Your task to perform on an android device: install app "TextNow: Call + Text Unlimited" Image 0: 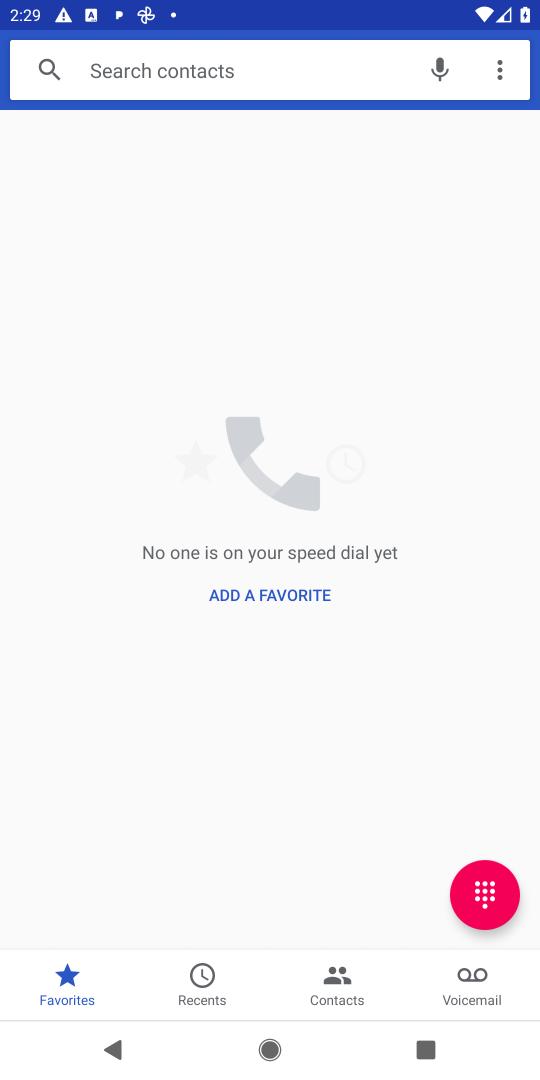
Step 0: press home button
Your task to perform on an android device: install app "TextNow: Call + Text Unlimited" Image 1: 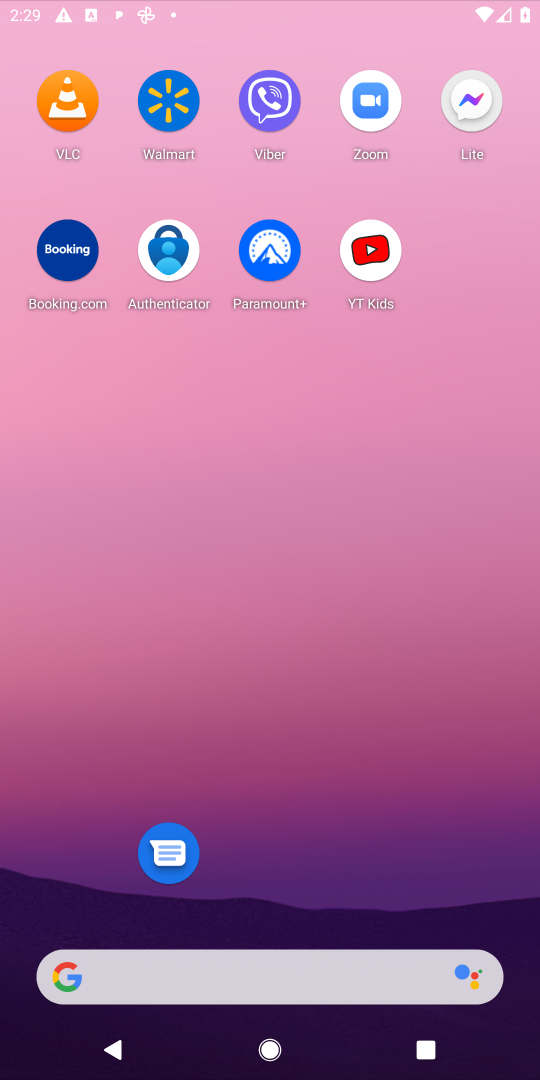
Step 1: press home button
Your task to perform on an android device: install app "TextNow: Call + Text Unlimited" Image 2: 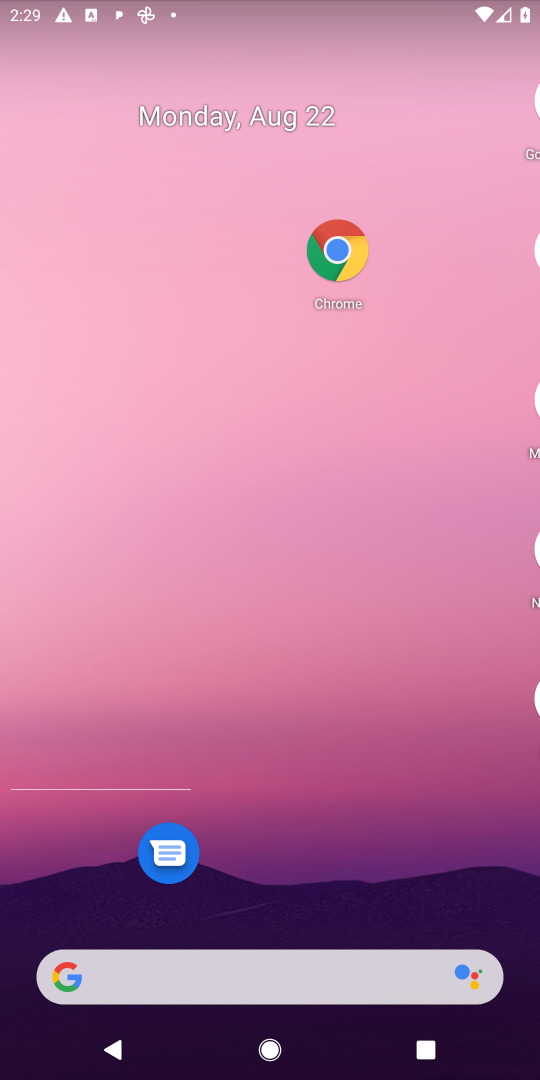
Step 2: drag from (295, 817) to (293, 177)
Your task to perform on an android device: install app "TextNow: Call + Text Unlimited" Image 3: 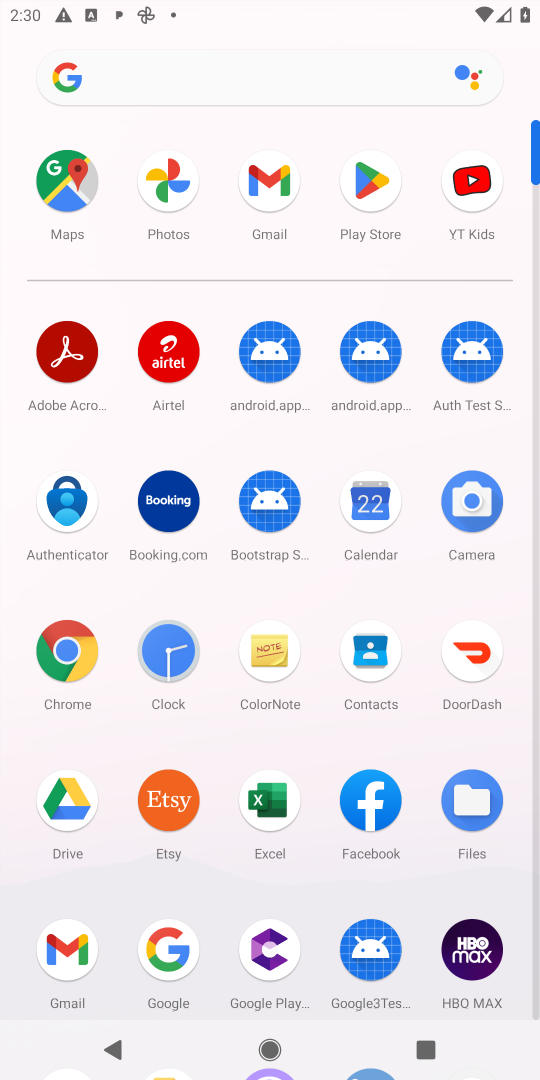
Step 3: click (362, 171)
Your task to perform on an android device: install app "TextNow: Call + Text Unlimited" Image 4: 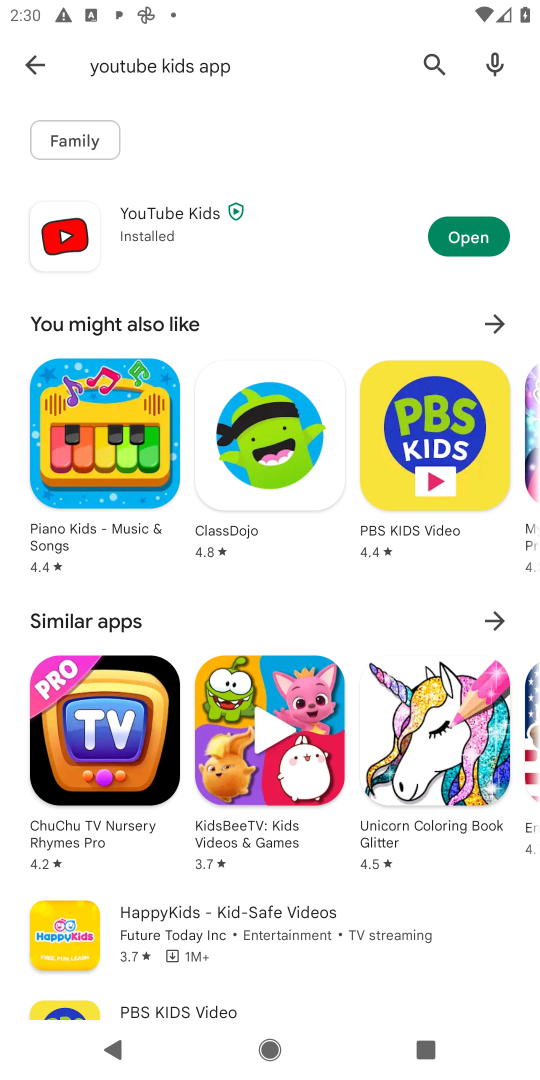
Step 4: click (31, 53)
Your task to perform on an android device: install app "TextNow: Call + Text Unlimited" Image 5: 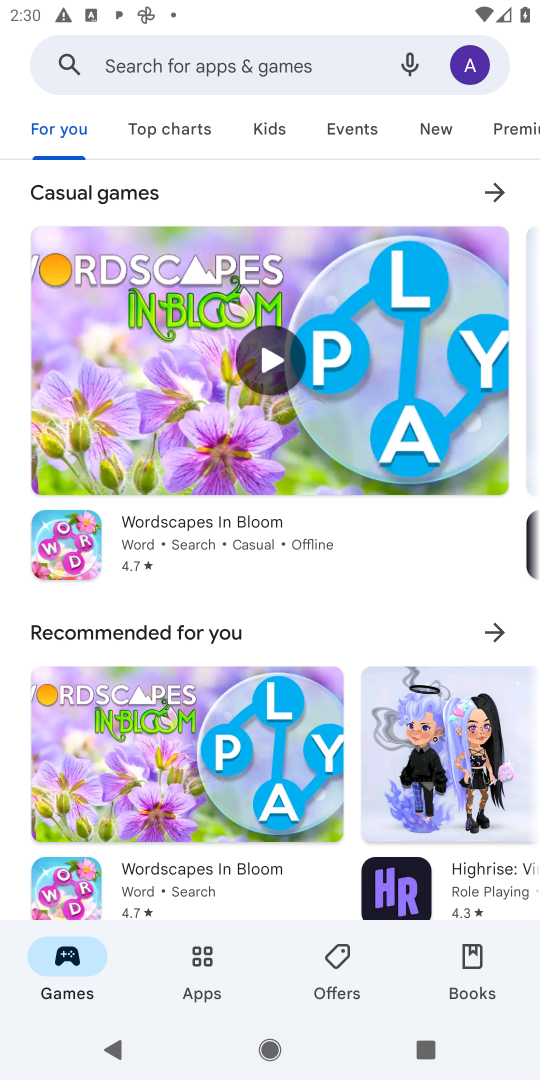
Step 5: click (241, 49)
Your task to perform on an android device: install app "TextNow: Call + Text Unlimited" Image 6: 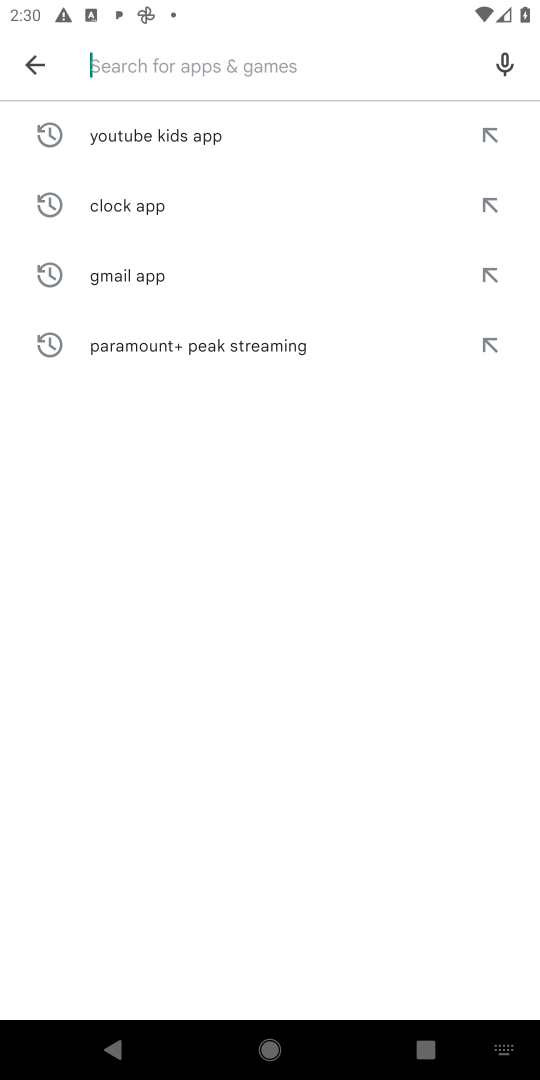
Step 6: type "TextNow: Call + Text Unlimited "
Your task to perform on an android device: install app "TextNow: Call + Text Unlimited" Image 7: 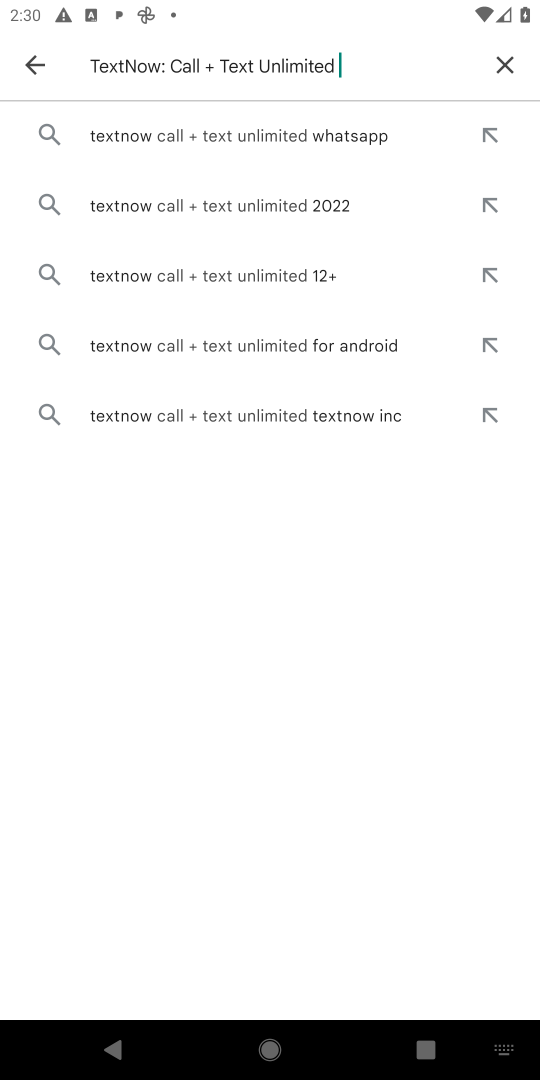
Step 7: click (193, 129)
Your task to perform on an android device: install app "TextNow: Call + Text Unlimited" Image 8: 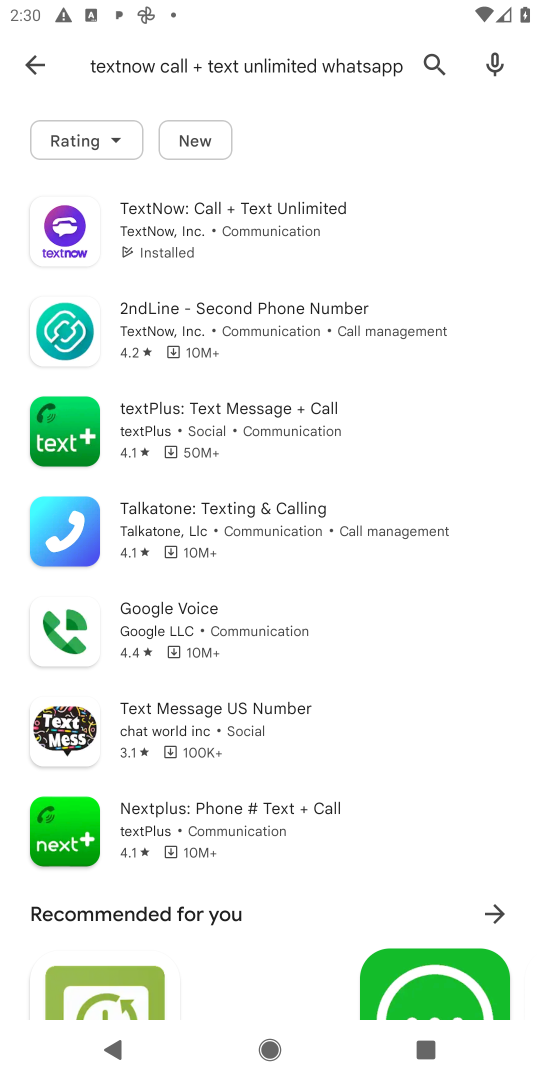
Step 8: click (219, 215)
Your task to perform on an android device: install app "TextNow: Call + Text Unlimited" Image 9: 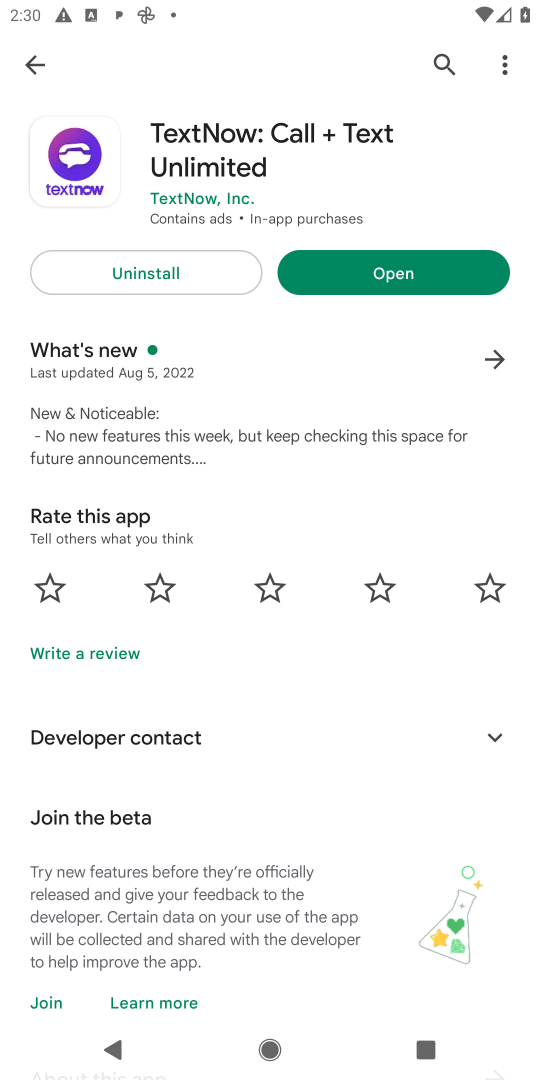
Step 9: click (401, 277)
Your task to perform on an android device: install app "TextNow: Call + Text Unlimited" Image 10: 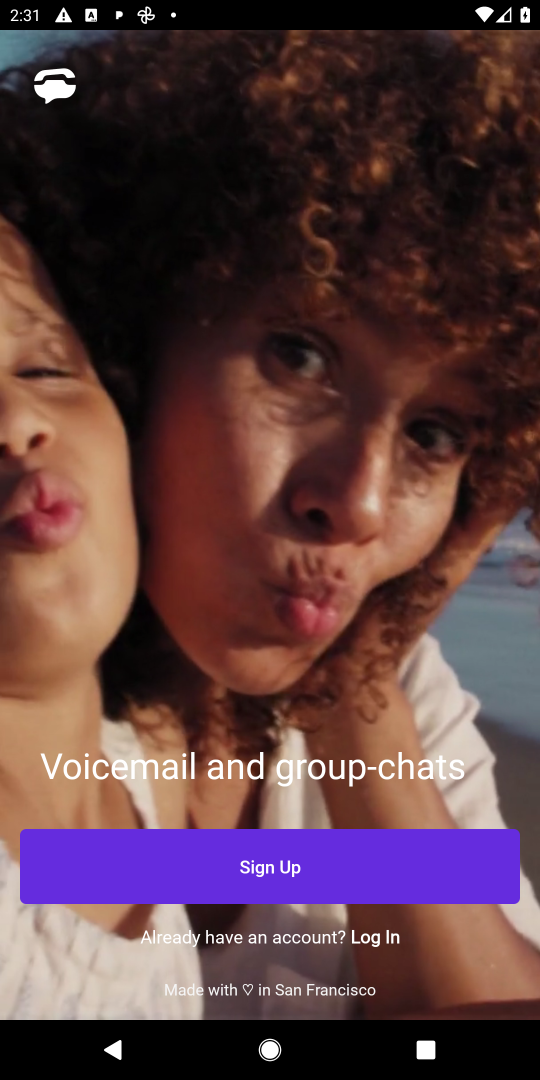
Step 10: task complete